Your task to perform on an android device: Search for "jbl flip 4" on walmart, select the first entry, add it to the cart, then select checkout. Image 0: 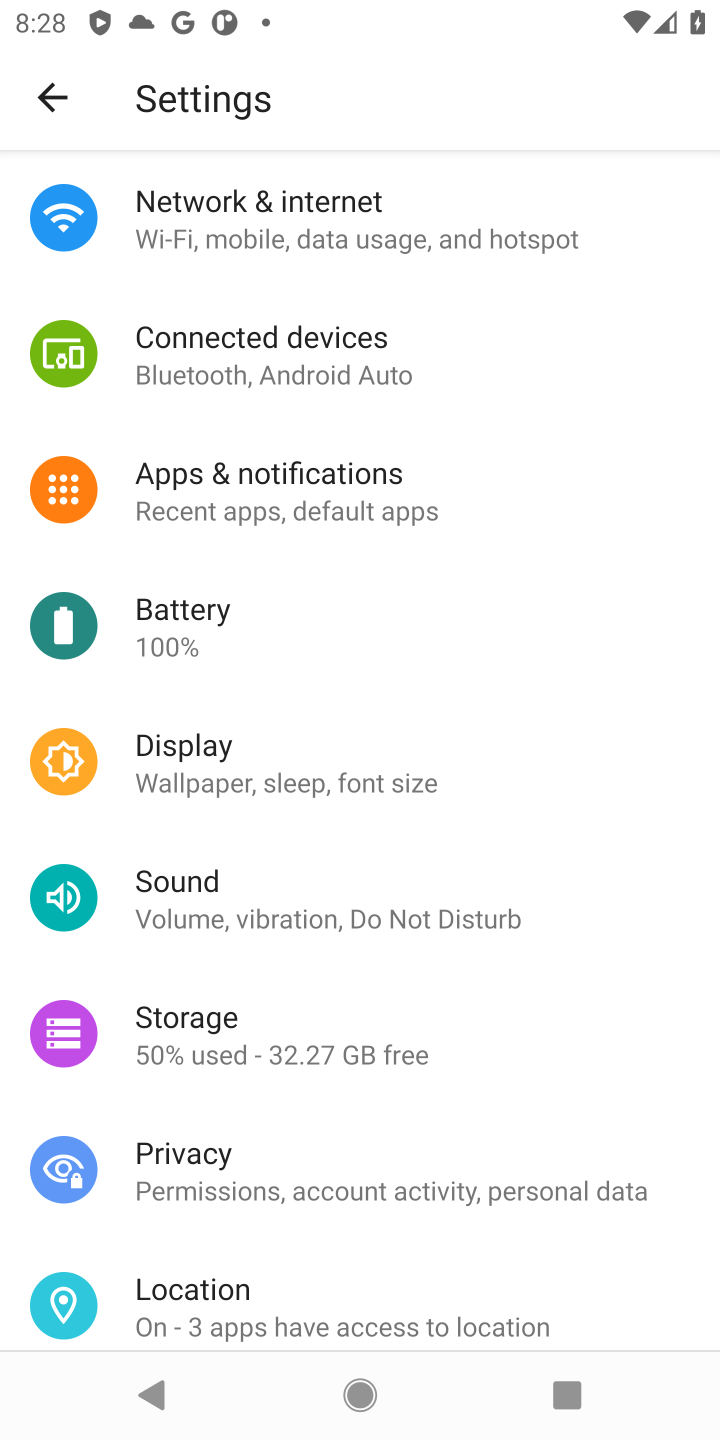
Step 0: press home button
Your task to perform on an android device: Search for "jbl flip 4" on walmart, select the first entry, add it to the cart, then select checkout. Image 1: 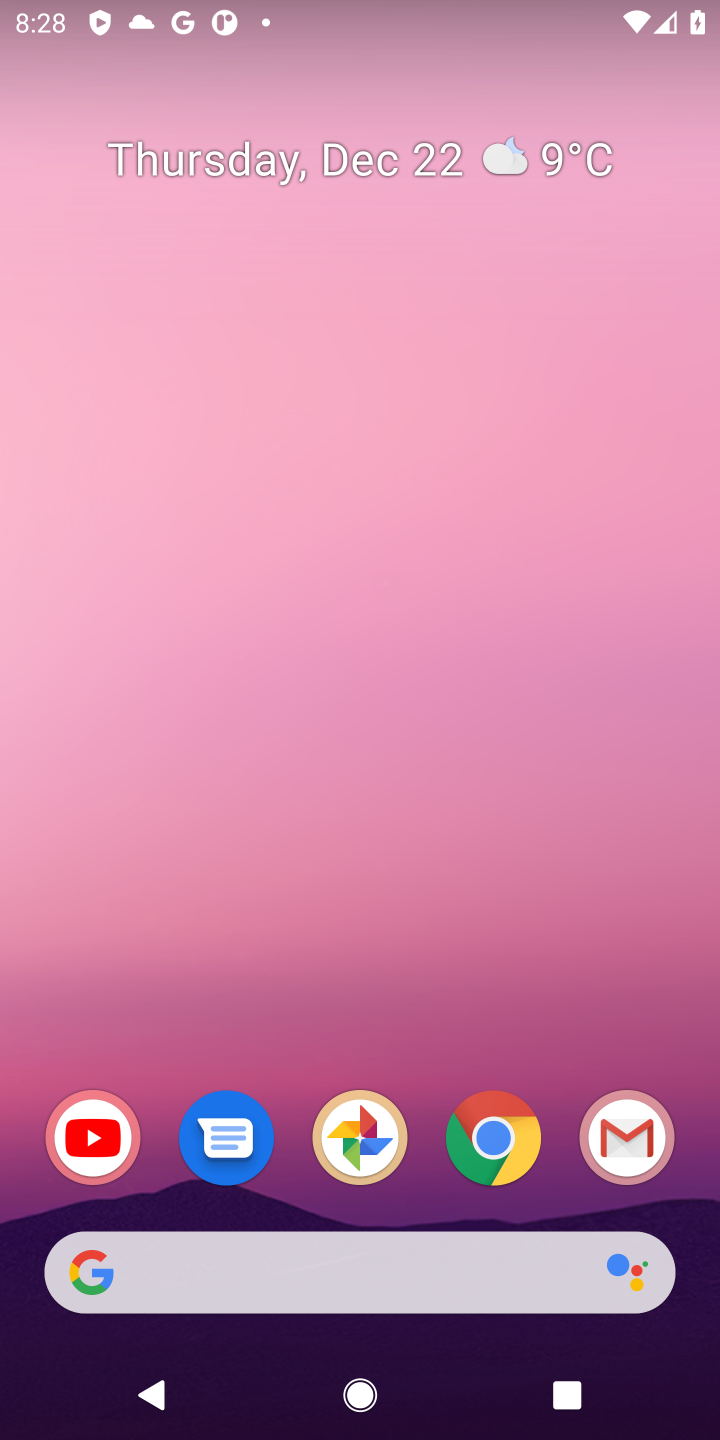
Step 1: click (468, 1145)
Your task to perform on an android device: Search for "jbl flip 4" on walmart, select the first entry, add it to the cart, then select checkout. Image 2: 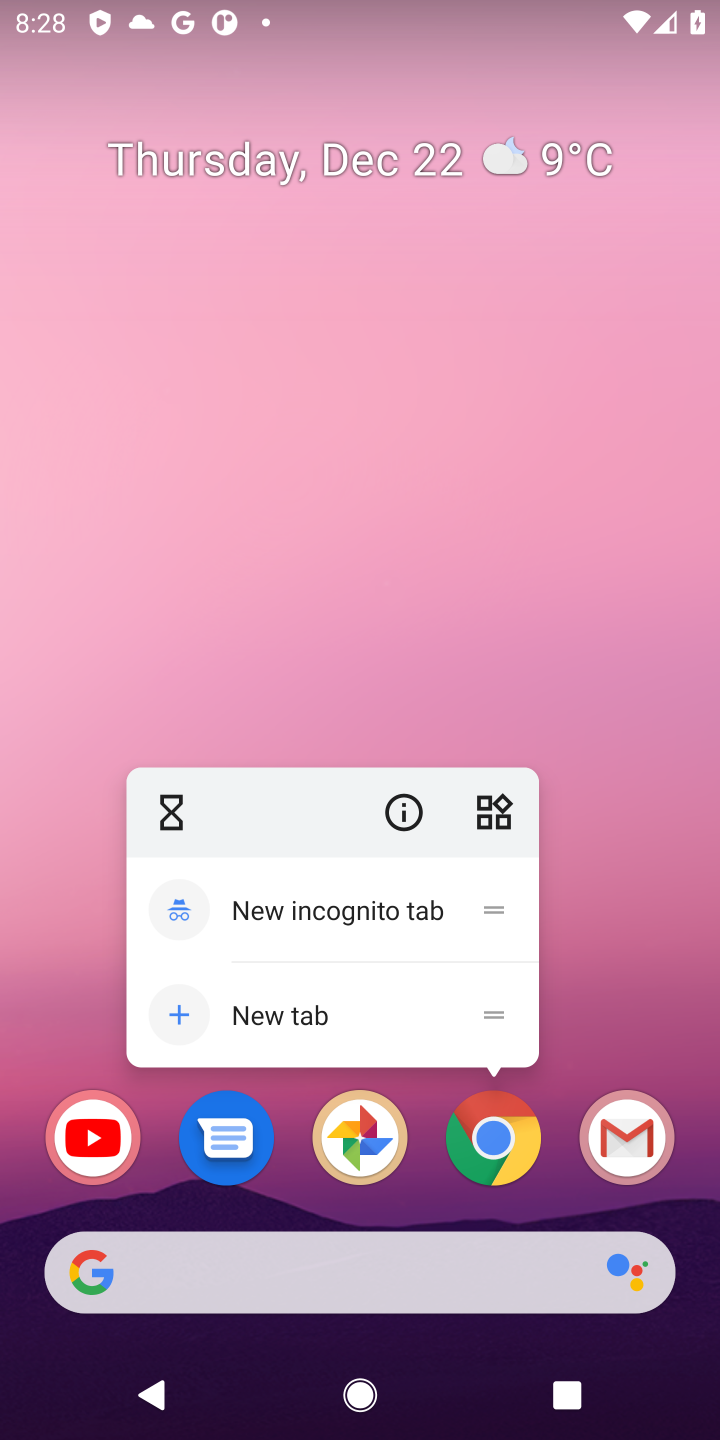
Step 2: click (481, 1147)
Your task to perform on an android device: Search for "jbl flip 4" on walmart, select the first entry, add it to the cart, then select checkout. Image 3: 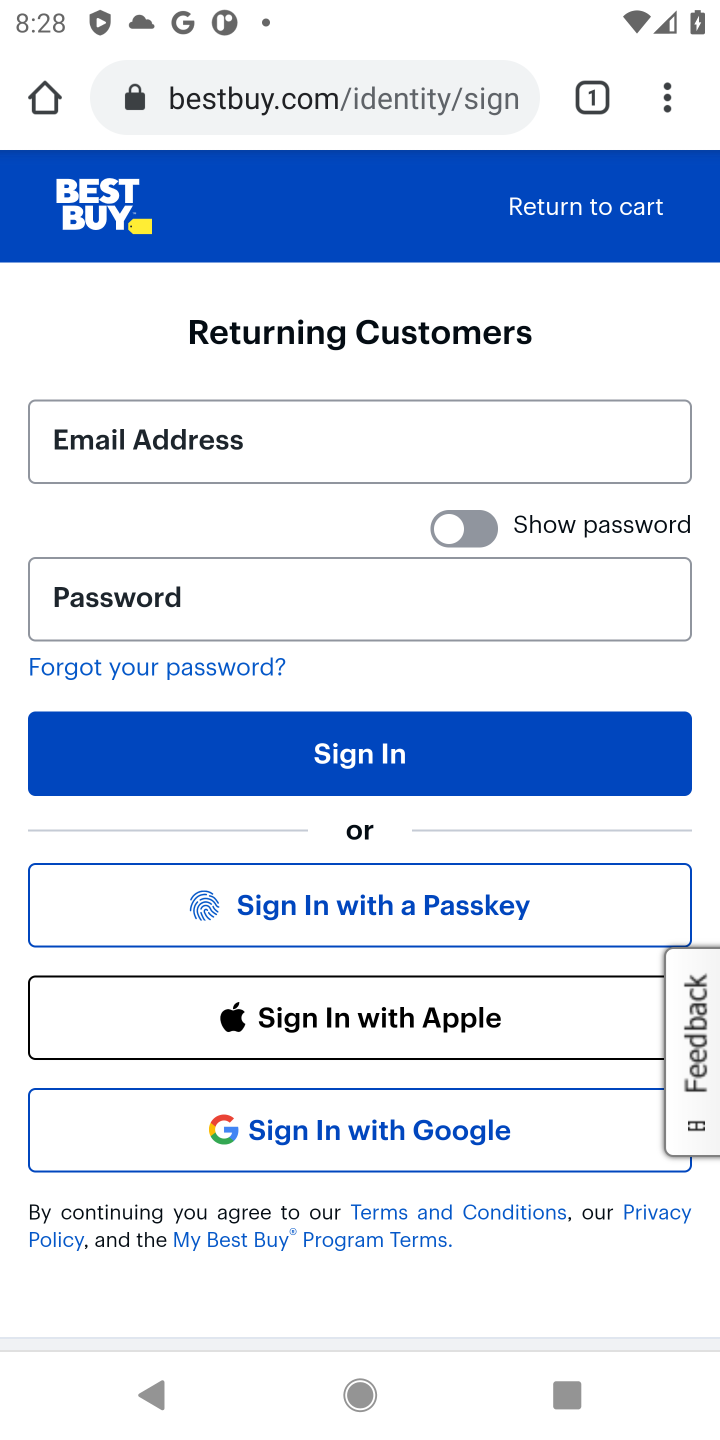
Step 3: click (212, 104)
Your task to perform on an android device: Search for "jbl flip 4" on walmart, select the first entry, add it to the cart, then select checkout. Image 4: 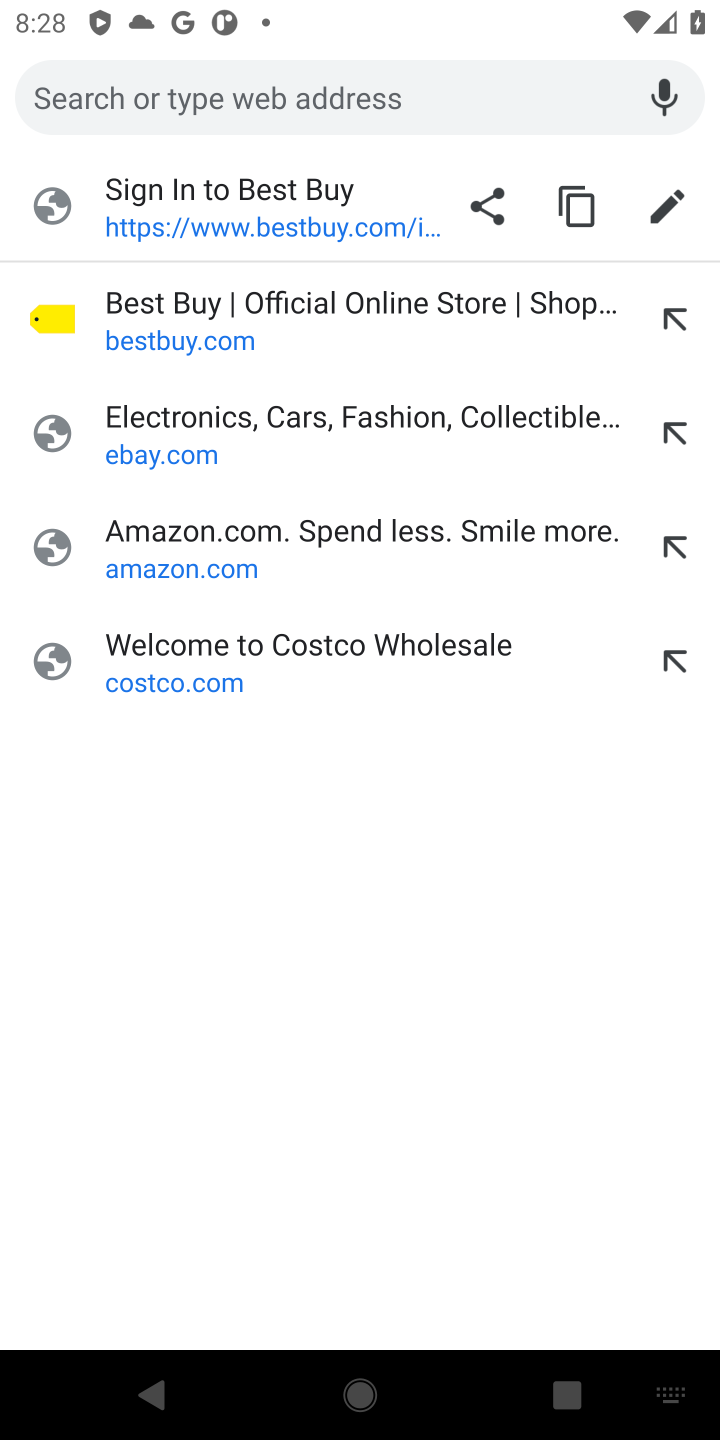
Step 4: type "walmart"
Your task to perform on an android device: Search for "jbl flip 4" on walmart, select the first entry, add it to the cart, then select checkout. Image 5: 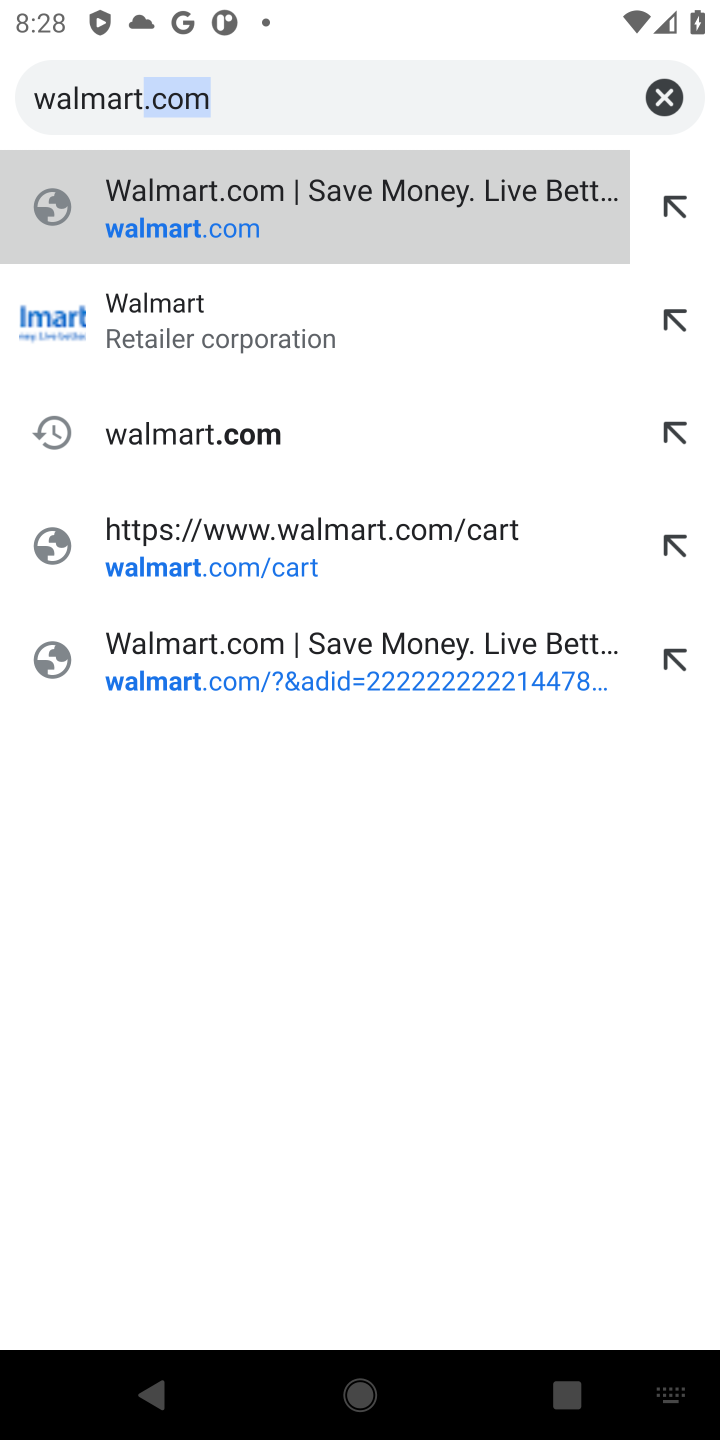
Step 5: click (312, 218)
Your task to perform on an android device: Search for "jbl flip 4" on walmart, select the first entry, add it to the cart, then select checkout. Image 6: 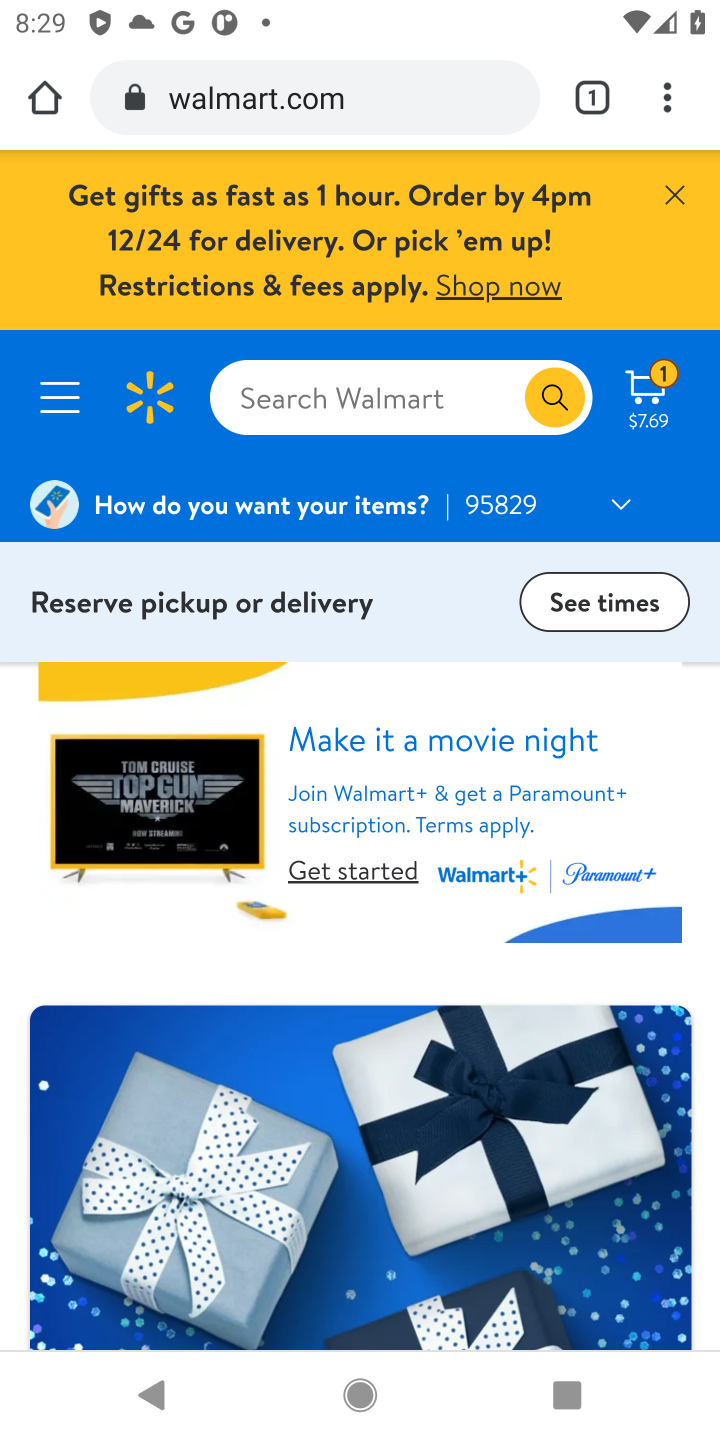
Step 6: click (432, 384)
Your task to perform on an android device: Search for "jbl flip 4" on walmart, select the first entry, add it to the cart, then select checkout. Image 7: 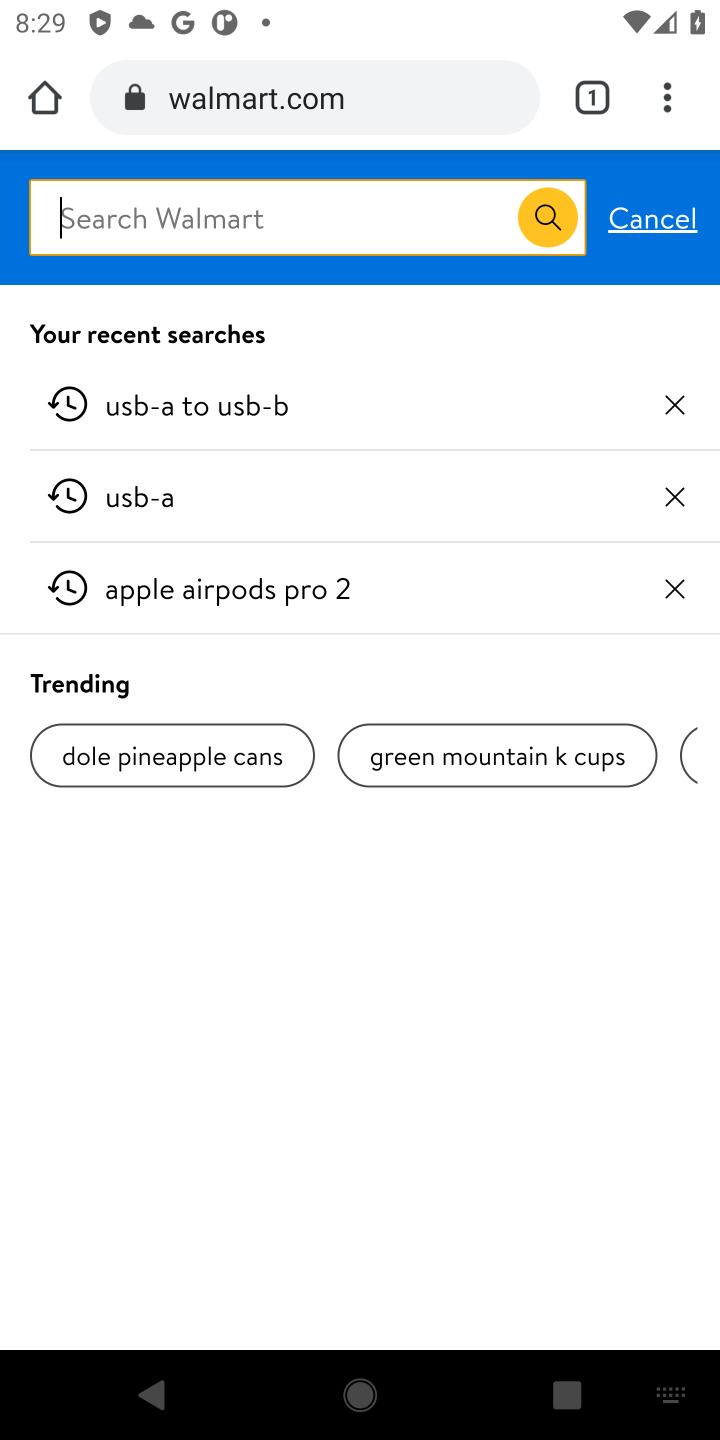
Step 7: type "jbl flip 4"
Your task to perform on an android device: Search for "jbl flip 4" on walmart, select the first entry, add it to the cart, then select checkout. Image 8: 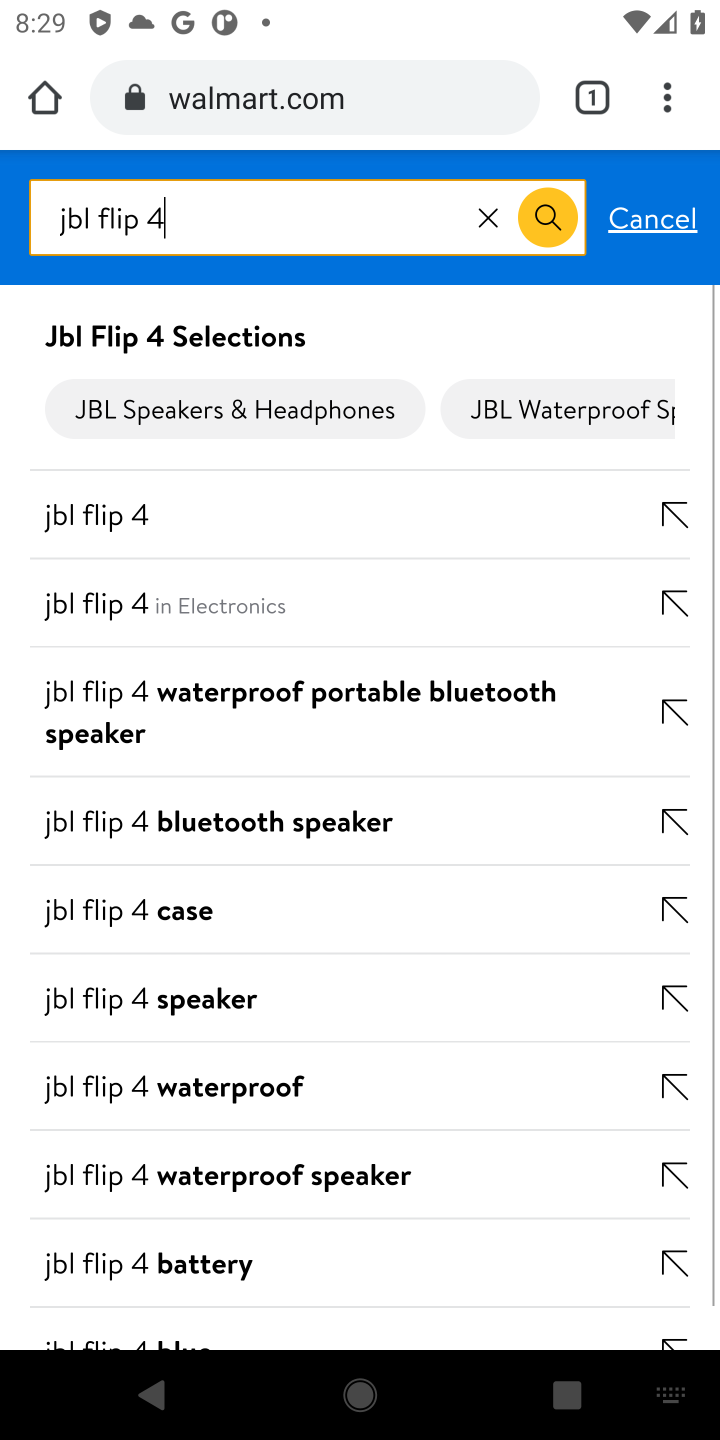
Step 8: click (539, 212)
Your task to perform on an android device: Search for "jbl flip 4" on walmart, select the first entry, add it to the cart, then select checkout. Image 9: 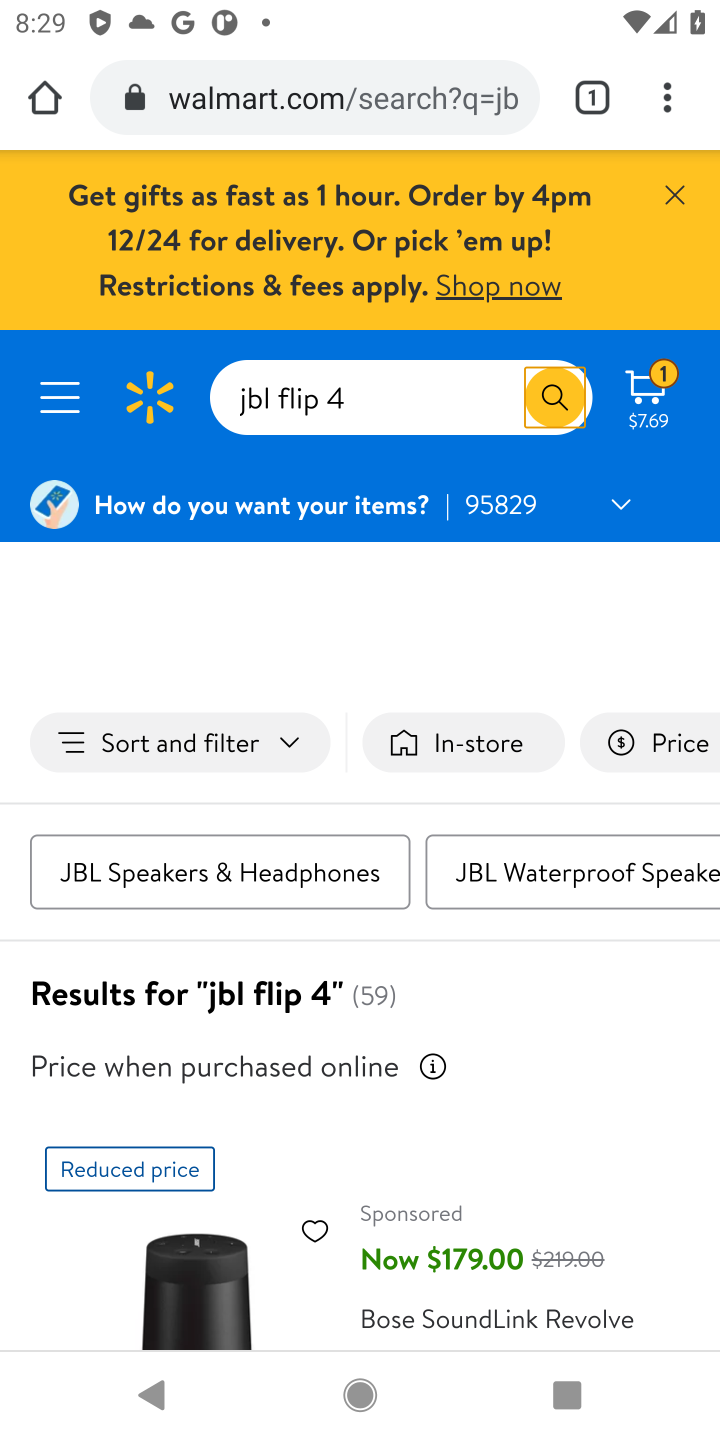
Step 9: click (667, 203)
Your task to perform on an android device: Search for "jbl flip 4" on walmart, select the first entry, add it to the cart, then select checkout. Image 10: 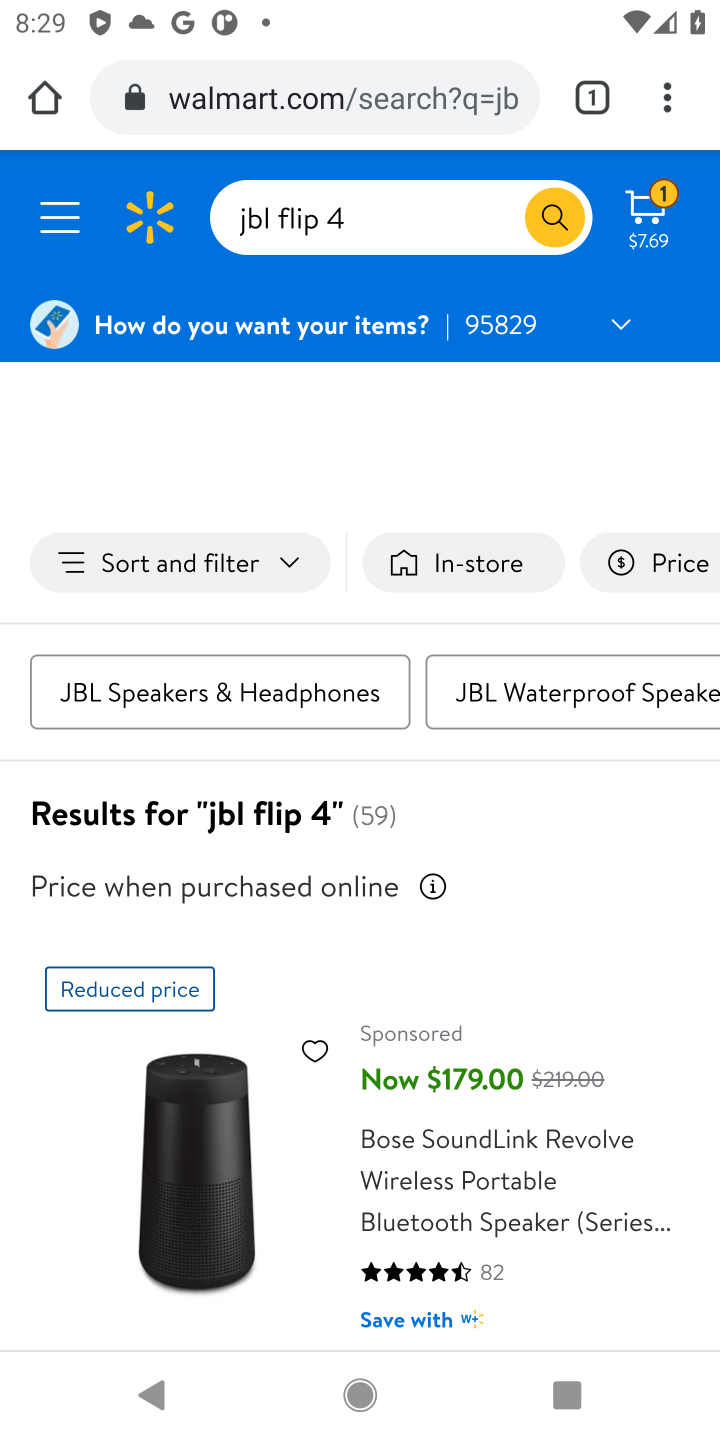
Step 10: task complete